Your task to perform on an android device: Clear the cart on target. Search for macbook pro 13 inch on target, select the first entry, and add it to the cart. Image 0: 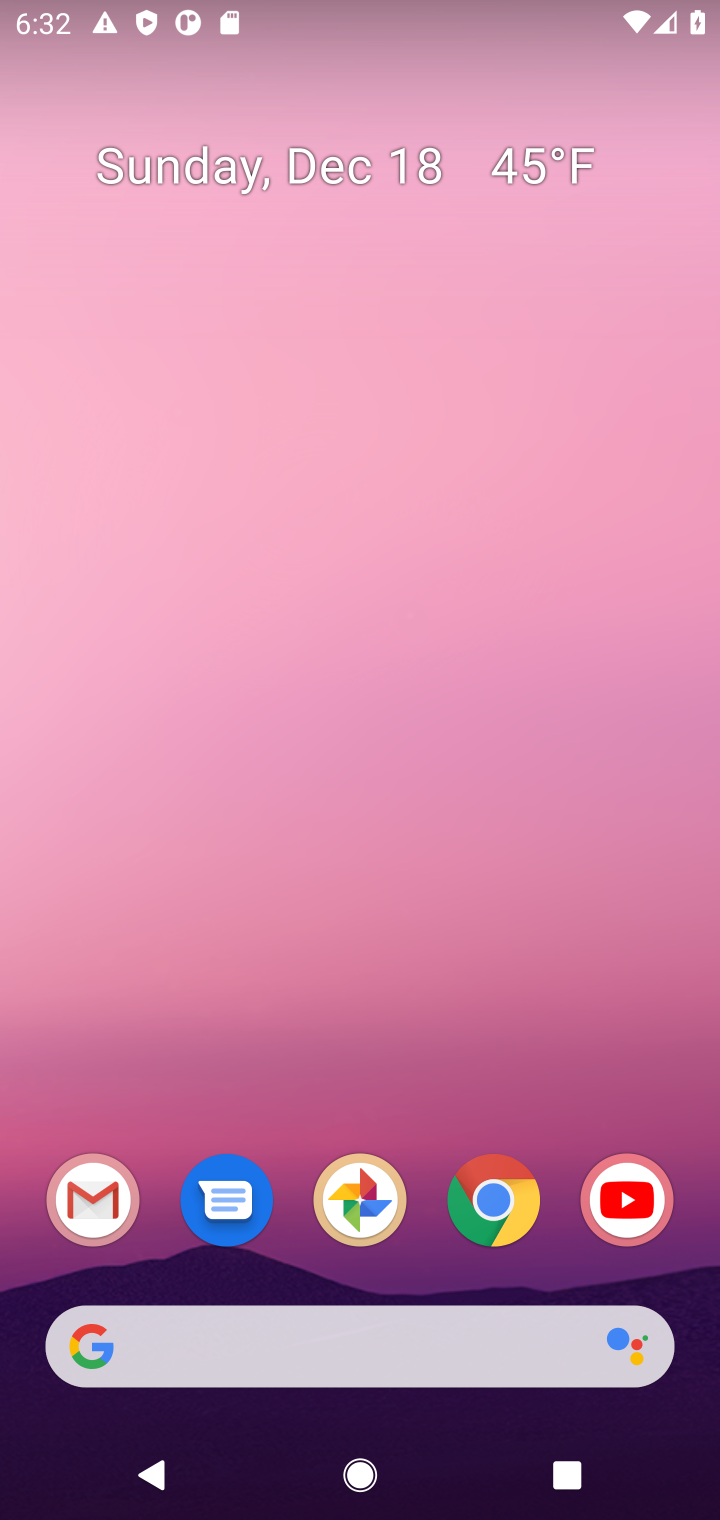
Step 0: click (493, 1205)
Your task to perform on an android device: Clear the cart on target. Search for macbook pro 13 inch on target, select the first entry, and add it to the cart. Image 1: 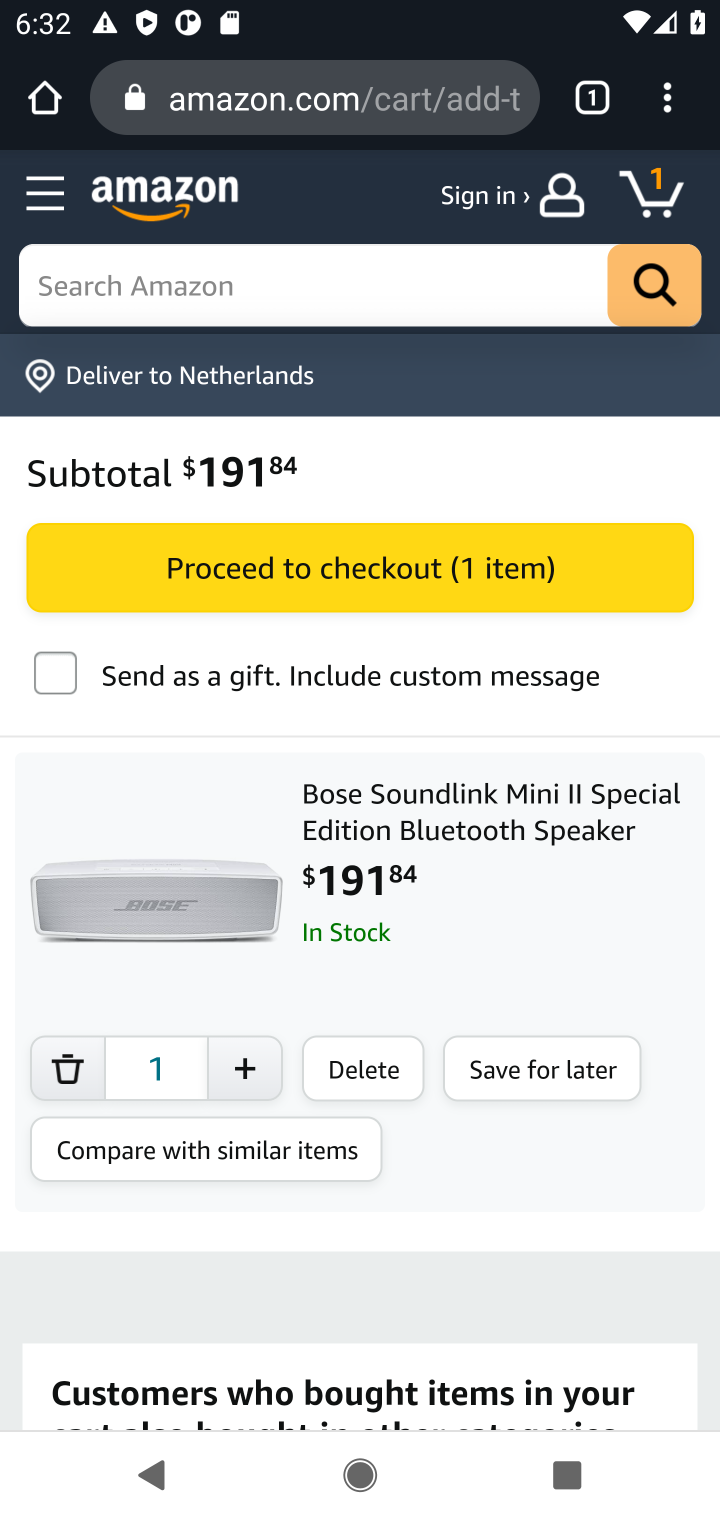
Step 1: click (296, 114)
Your task to perform on an android device: Clear the cart on target. Search for macbook pro 13 inch on target, select the first entry, and add it to the cart. Image 2: 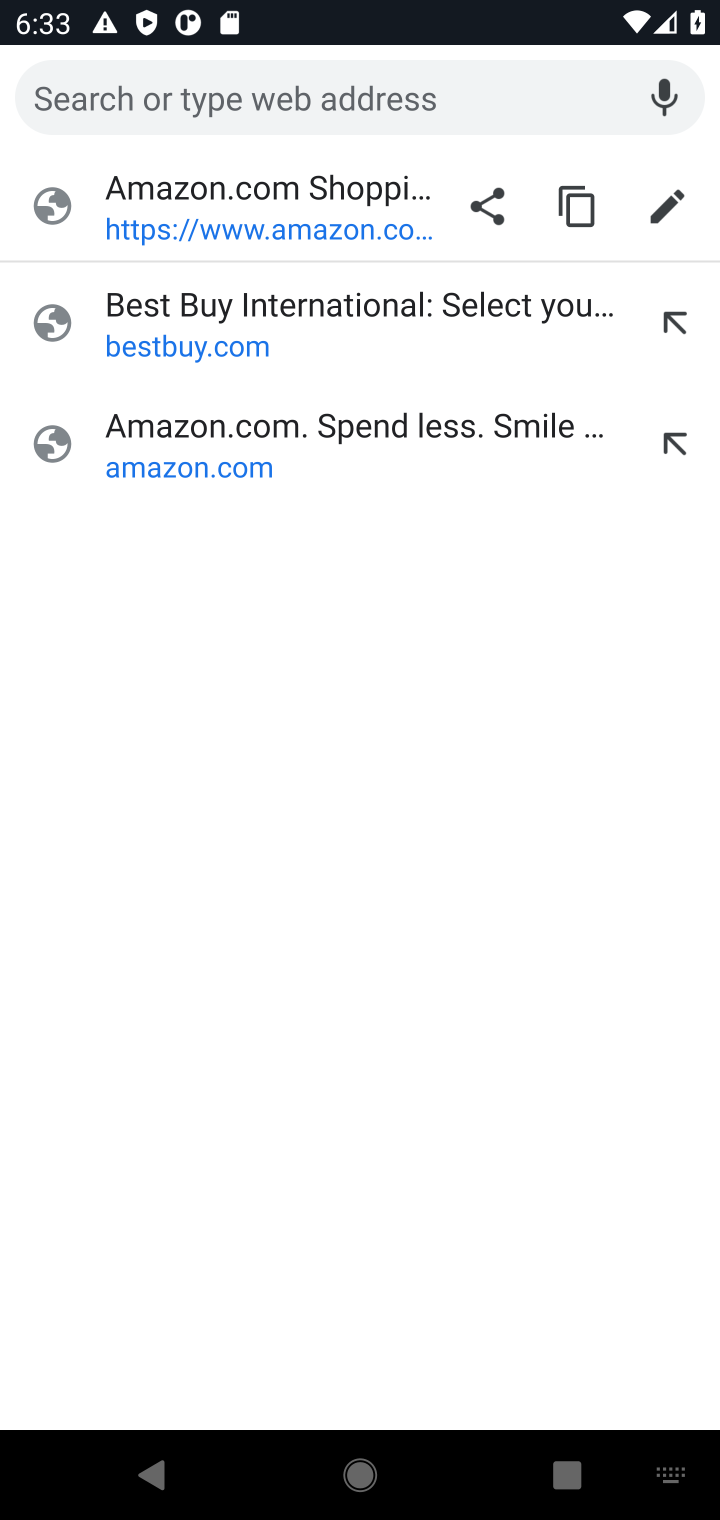
Step 2: type "target.com"
Your task to perform on an android device: Clear the cart on target. Search for macbook pro 13 inch on target, select the first entry, and add it to the cart. Image 3: 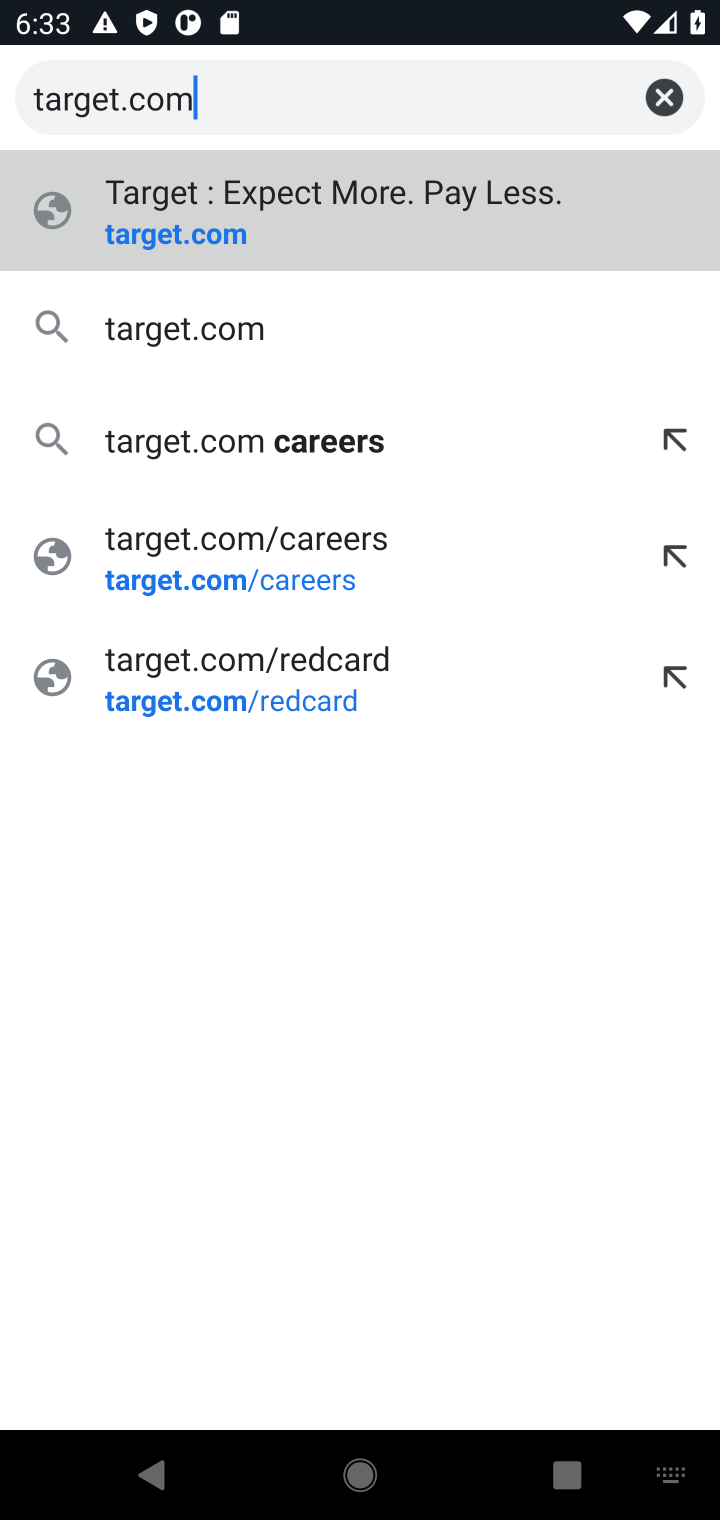
Step 3: click (163, 249)
Your task to perform on an android device: Clear the cart on target. Search for macbook pro 13 inch on target, select the first entry, and add it to the cart. Image 4: 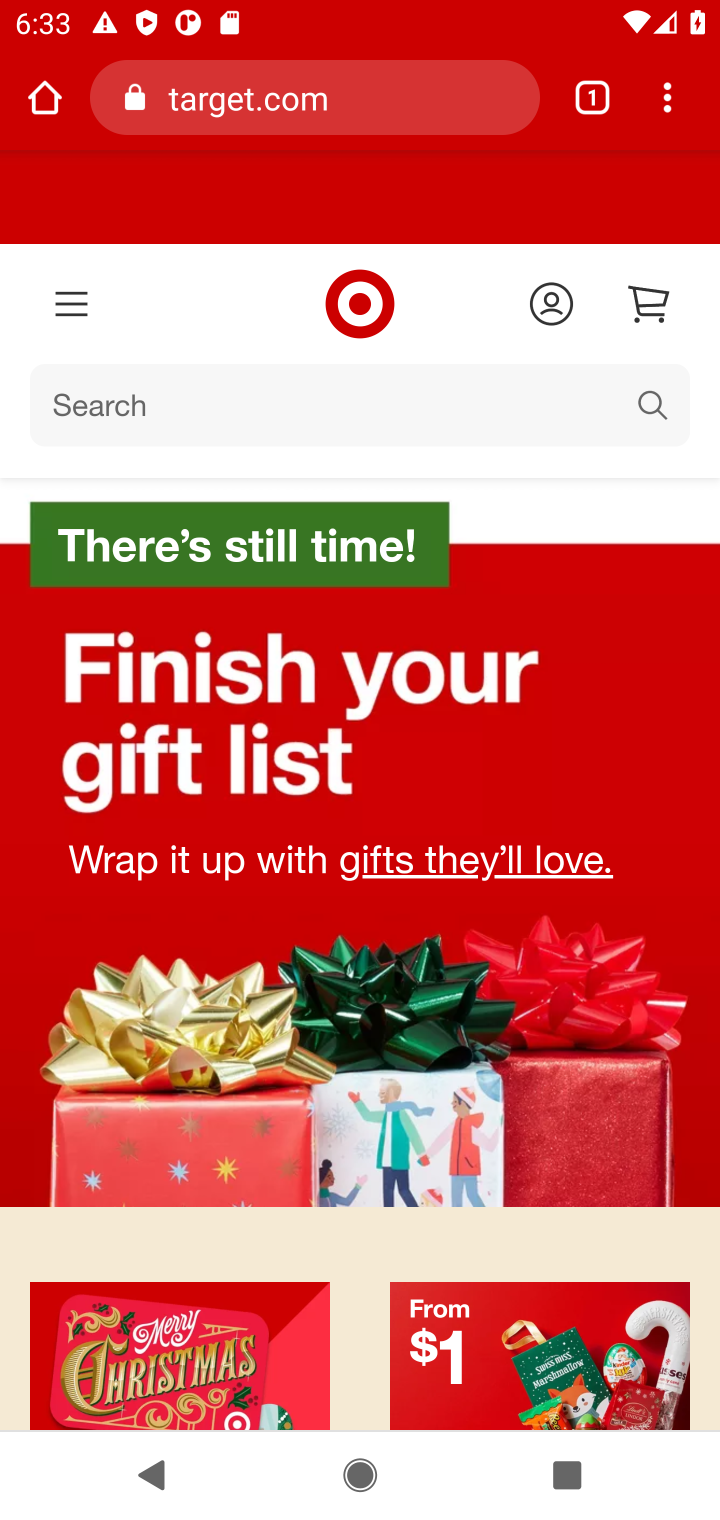
Step 4: click (656, 301)
Your task to perform on an android device: Clear the cart on target. Search for macbook pro 13 inch on target, select the first entry, and add it to the cart. Image 5: 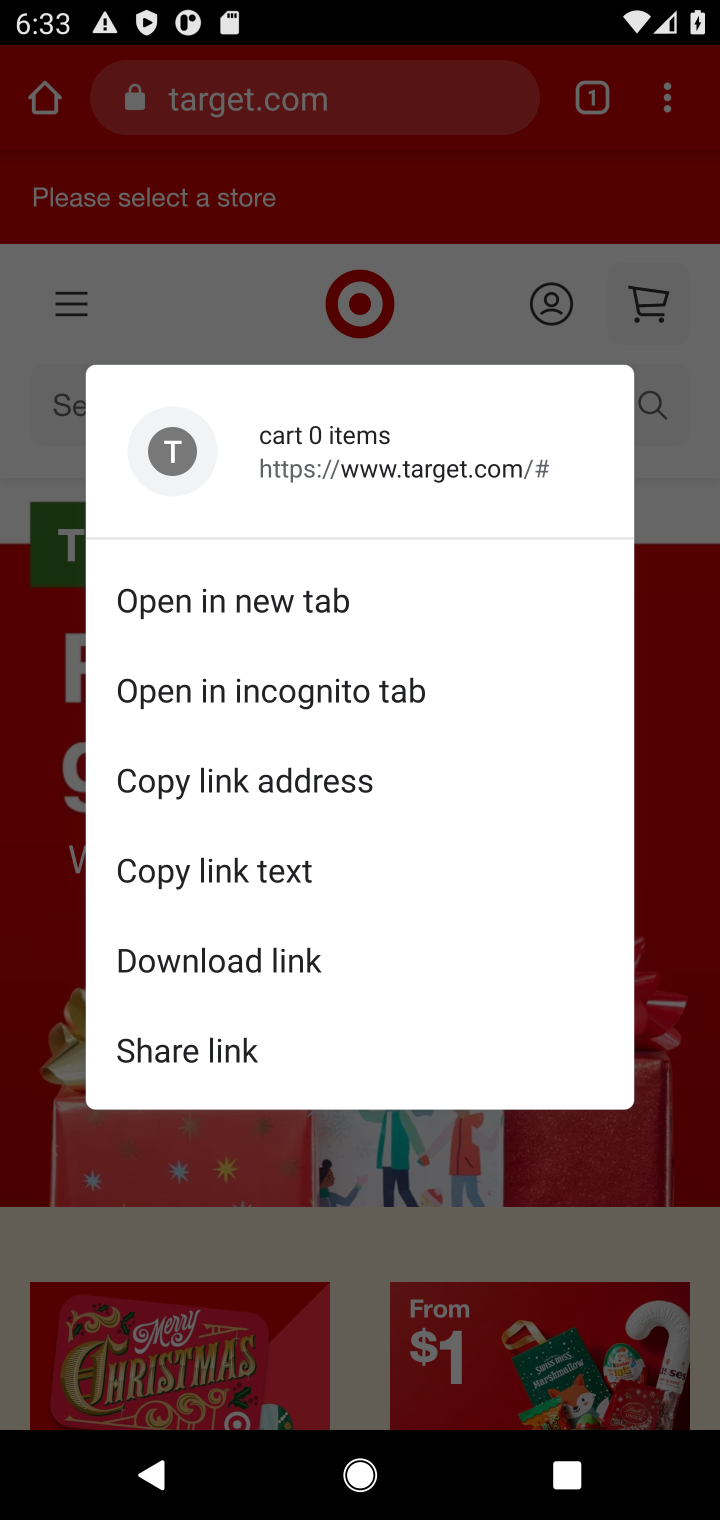
Step 5: click (661, 310)
Your task to perform on an android device: Clear the cart on target. Search for macbook pro 13 inch on target, select the first entry, and add it to the cart. Image 6: 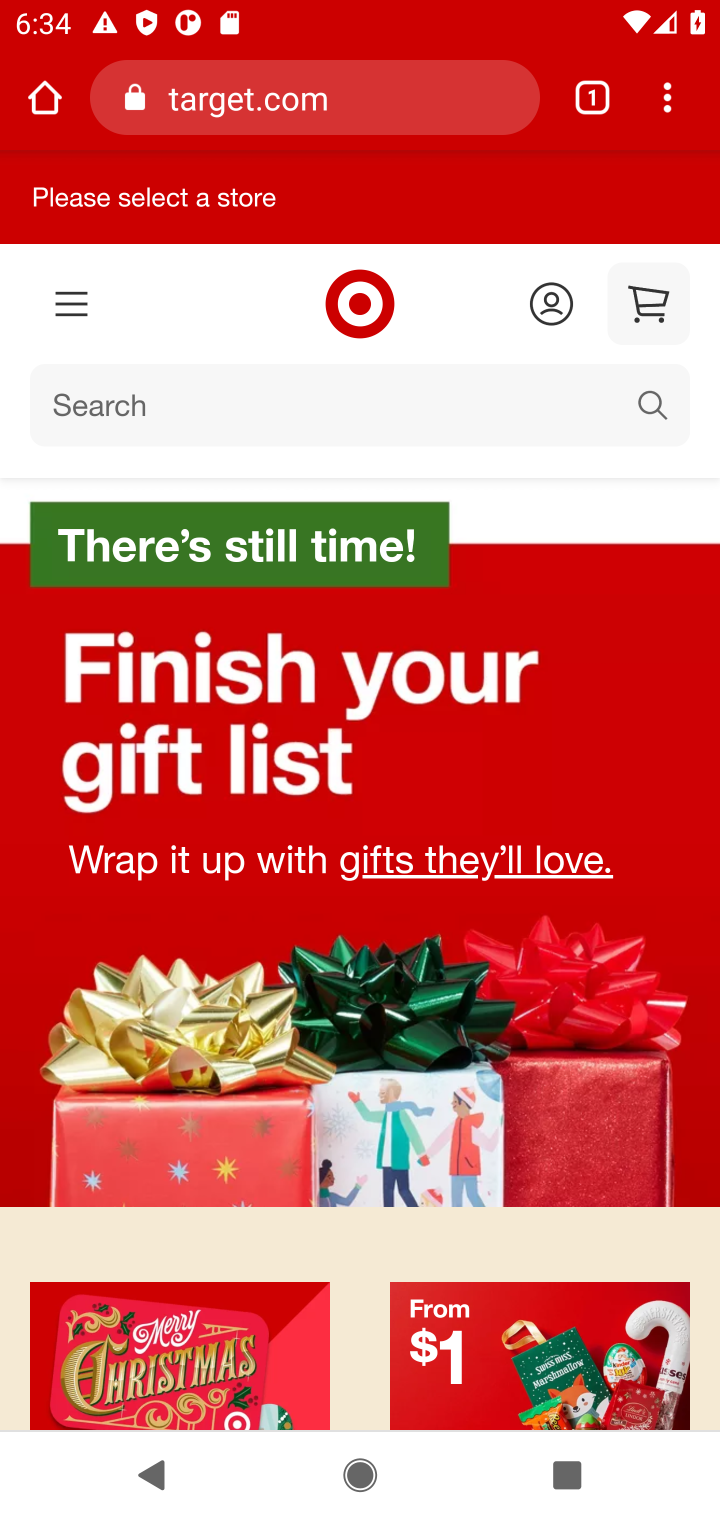
Step 6: click (628, 314)
Your task to perform on an android device: Clear the cart on target. Search for macbook pro 13 inch on target, select the first entry, and add it to the cart. Image 7: 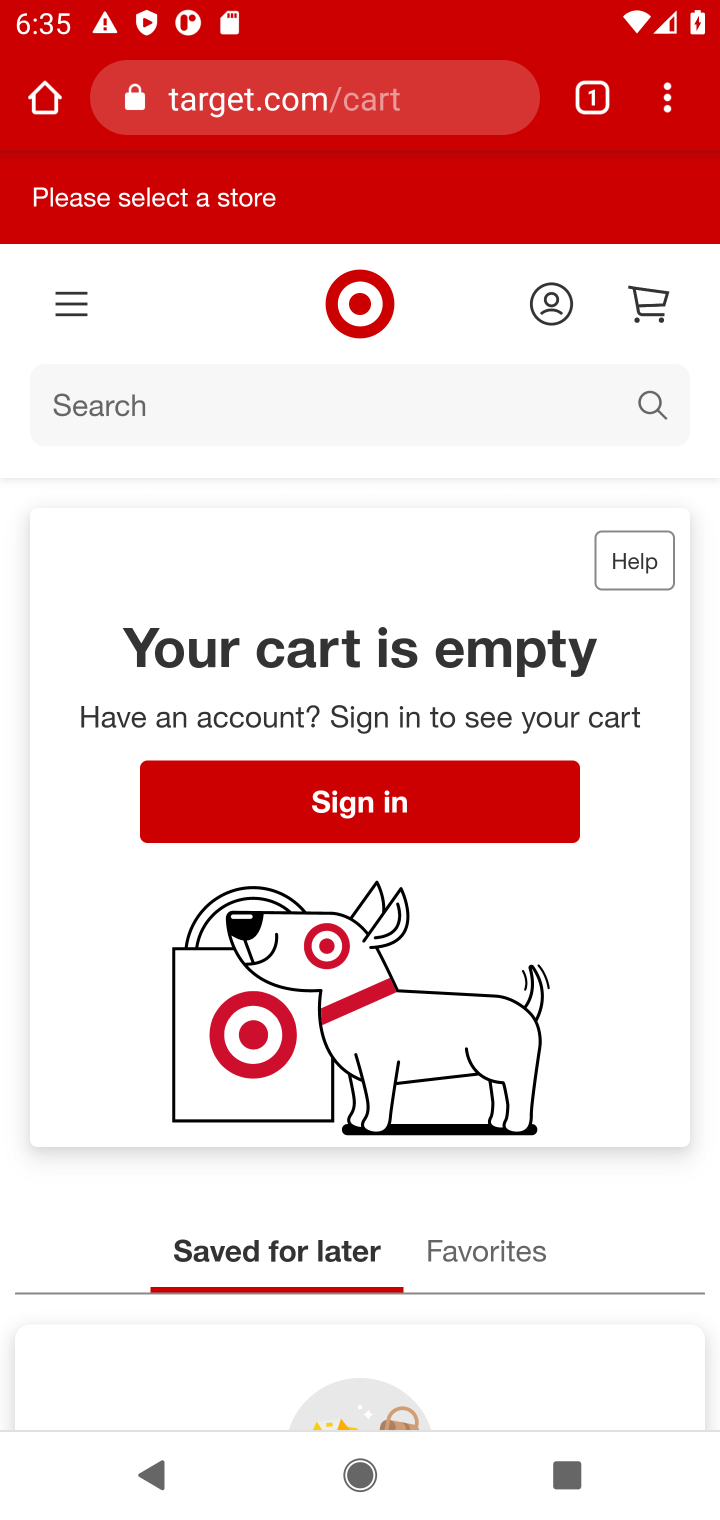
Step 7: click (118, 411)
Your task to perform on an android device: Clear the cart on target. Search for macbook pro 13 inch on target, select the first entry, and add it to the cart. Image 8: 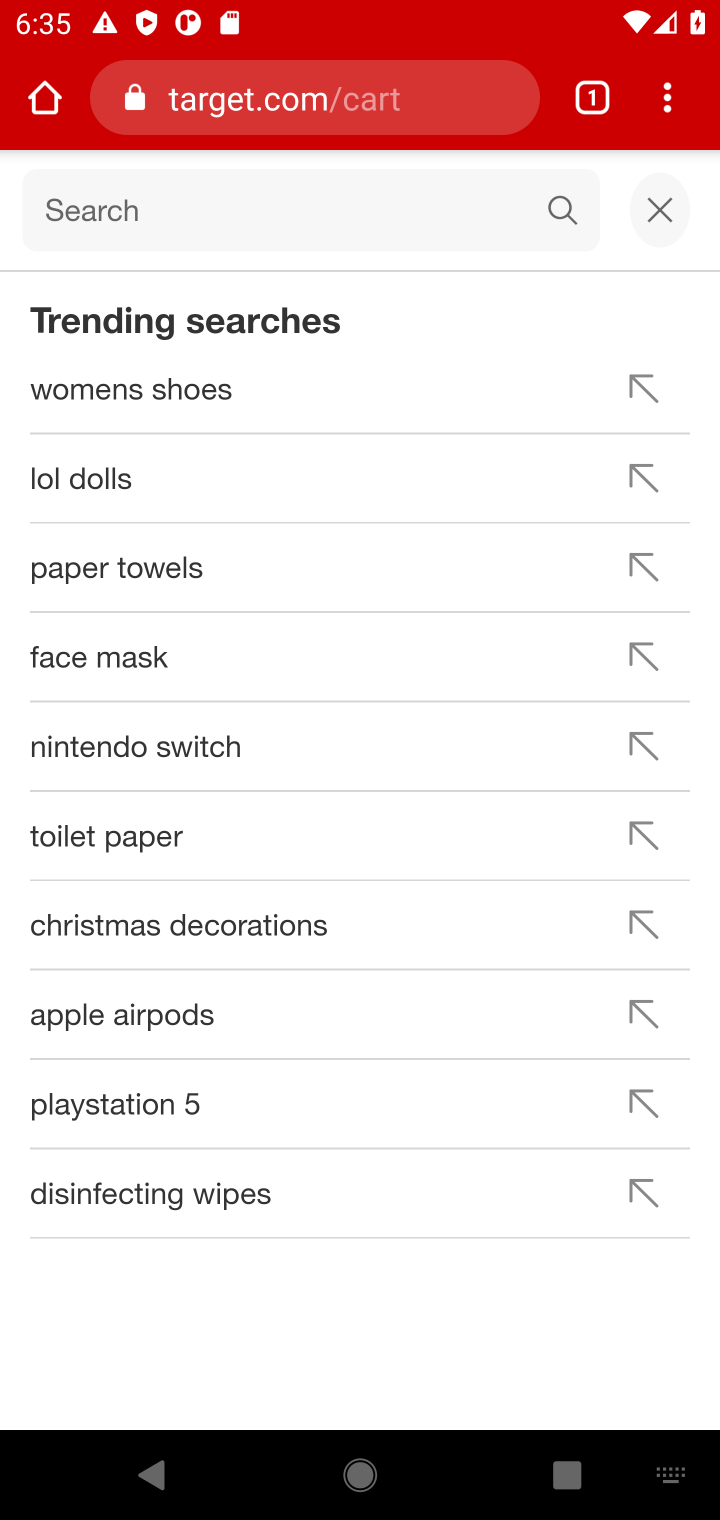
Step 8: type "macbook pro 13 inch "
Your task to perform on an android device: Clear the cart on target. Search for macbook pro 13 inch on target, select the first entry, and add it to the cart. Image 9: 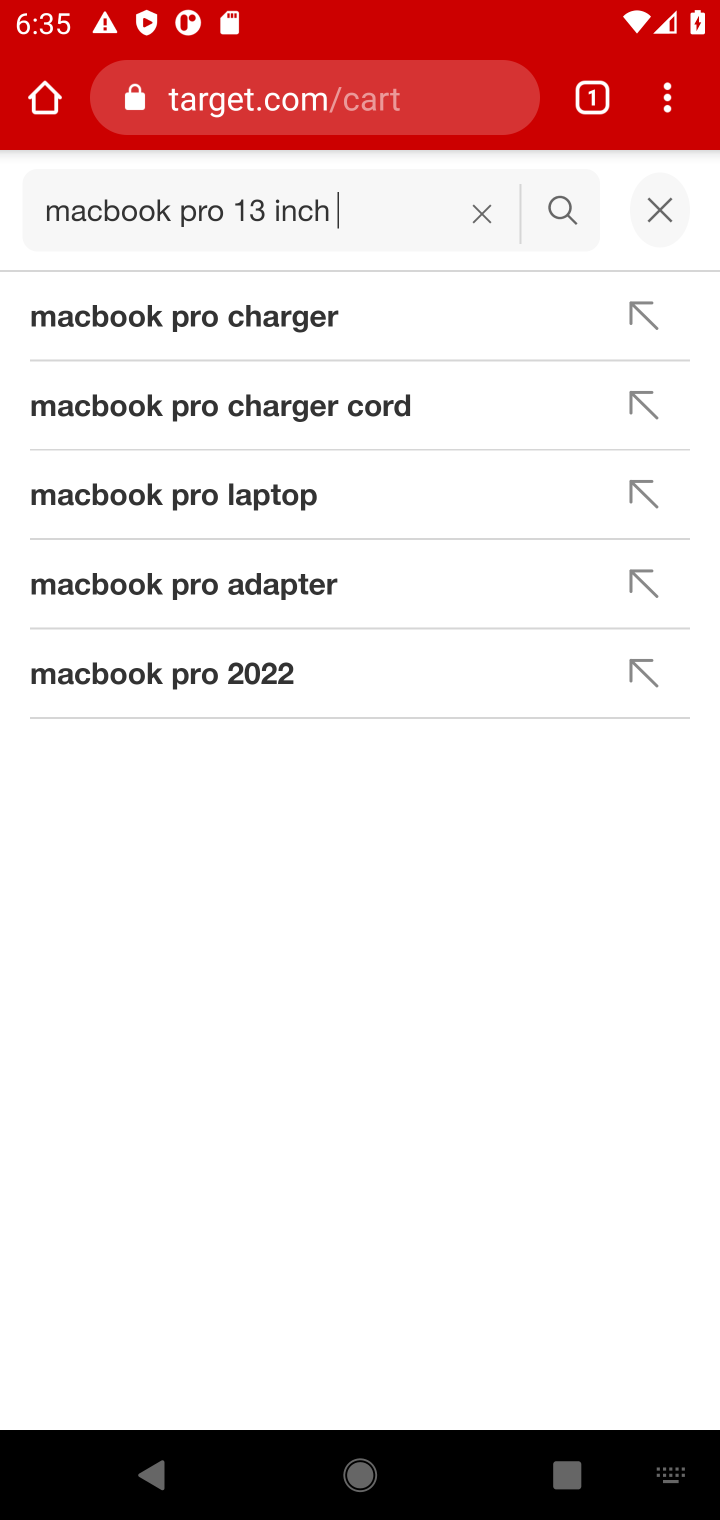
Step 9: click (558, 202)
Your task to perform on an android device: Clear the cart on target. Search for macbook pro 13 inch on target, select the first entry, and add it to the cart. Image 10: 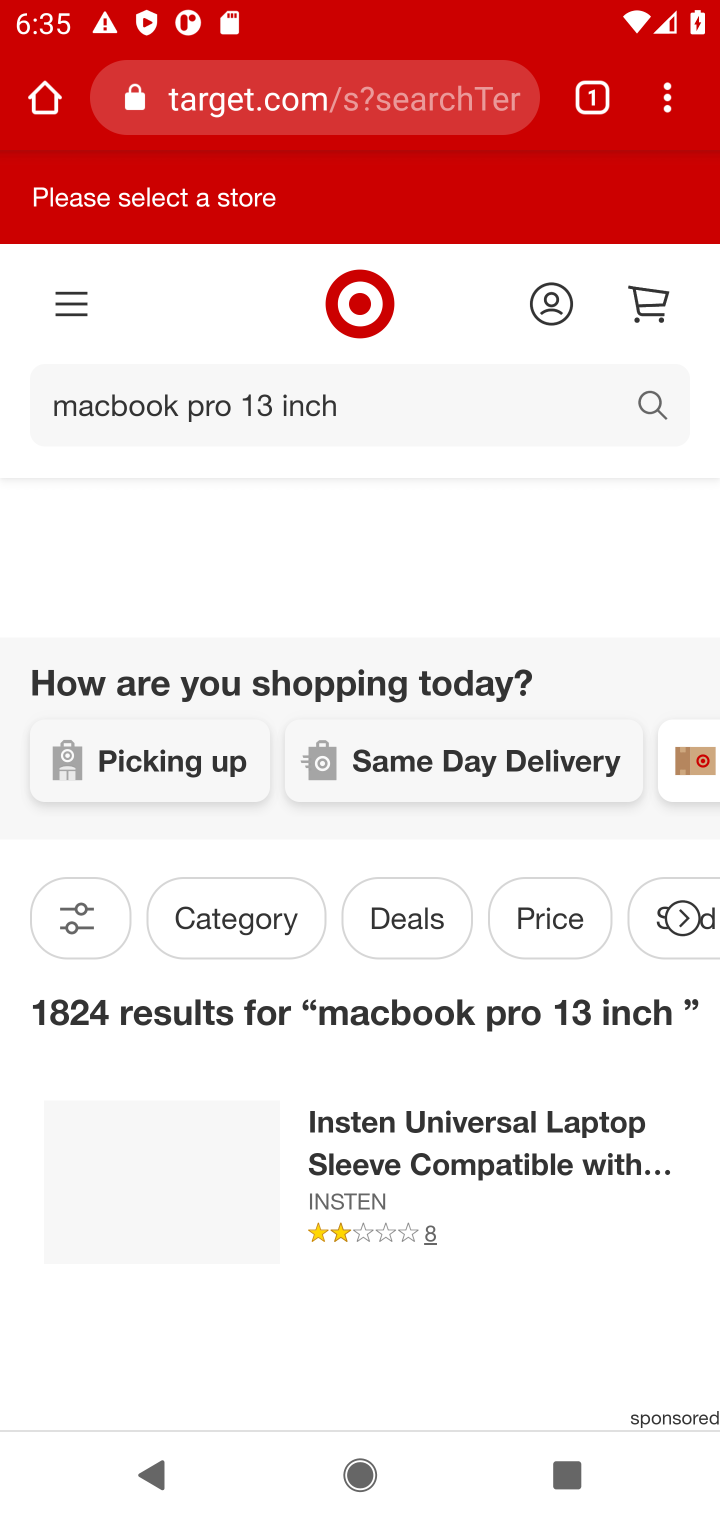
Step 10: drag from (395, 1015) to (438, 613)
Your task to perform on an android device: Clear the cart on target. Search for macbook pro 13 inch on target, select the first entry, and add it to the cart. Image 11: 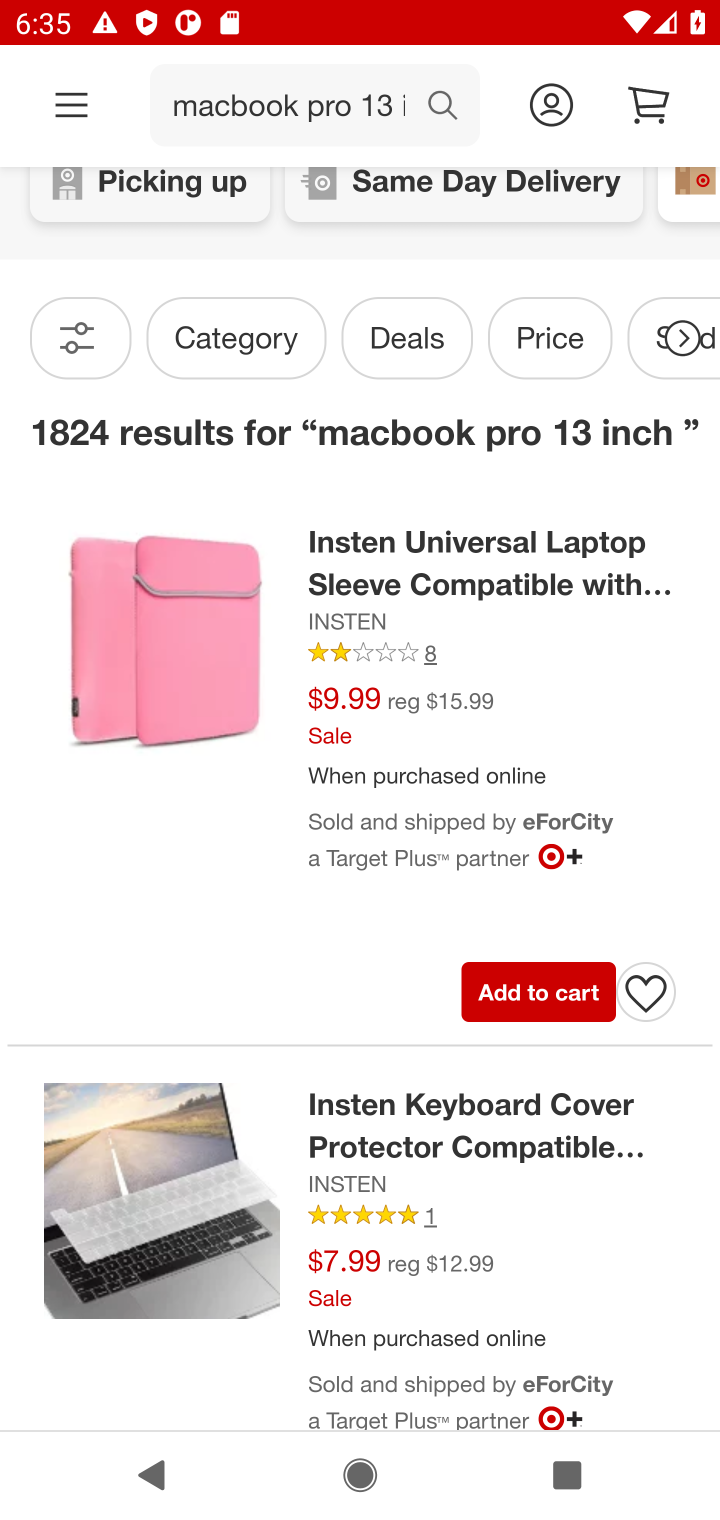
Step 11: click (419, 588)
Your task to perform on an android device: Clear the cart on target. Search for macbook pro 13 inch on target, select the first entry, and add it to the cart. Image 12: 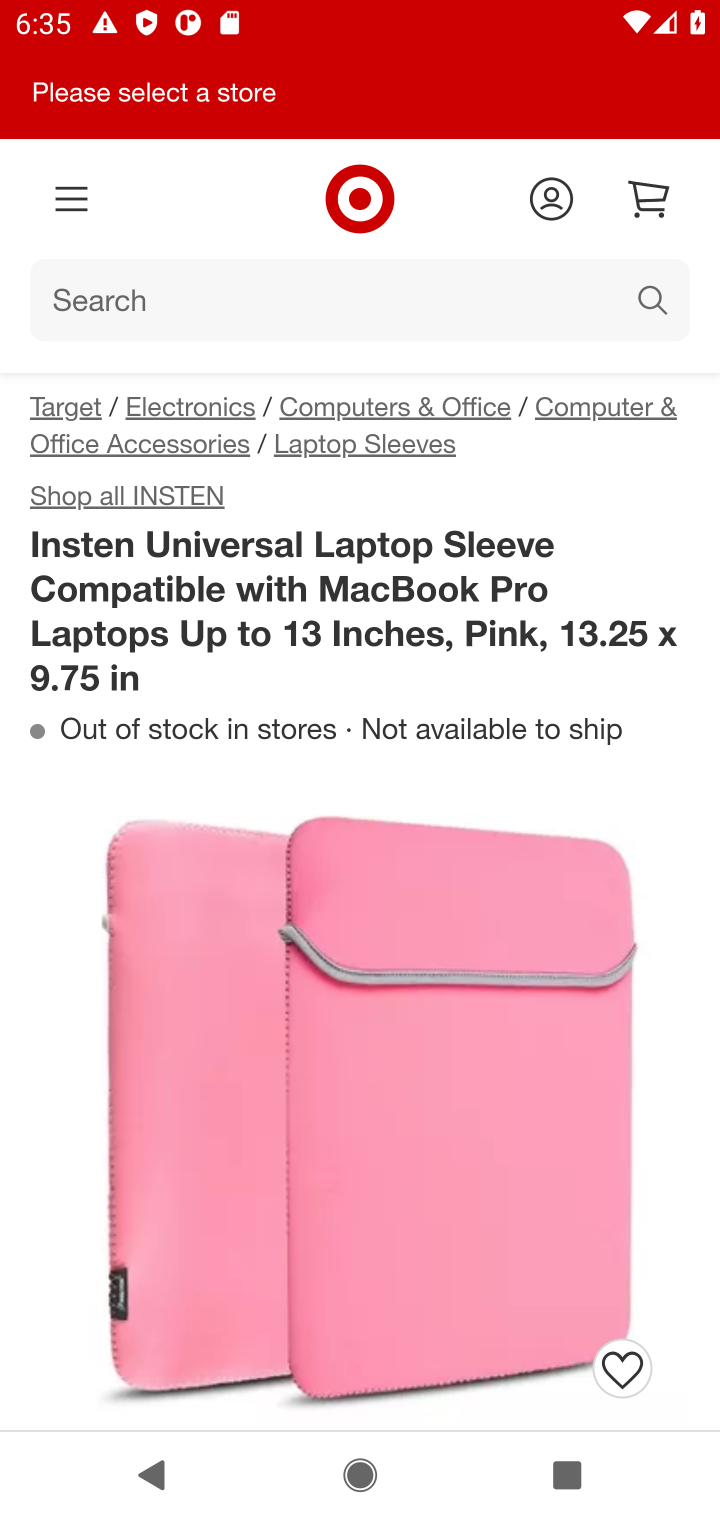
Step 12: drag from (358, 1017) to (375, 665)
Your task to perform on an android device: Clear the cart on target. Search for macbook pro 13 inch on target, select the first entry, and add it to the cart. Image 13: 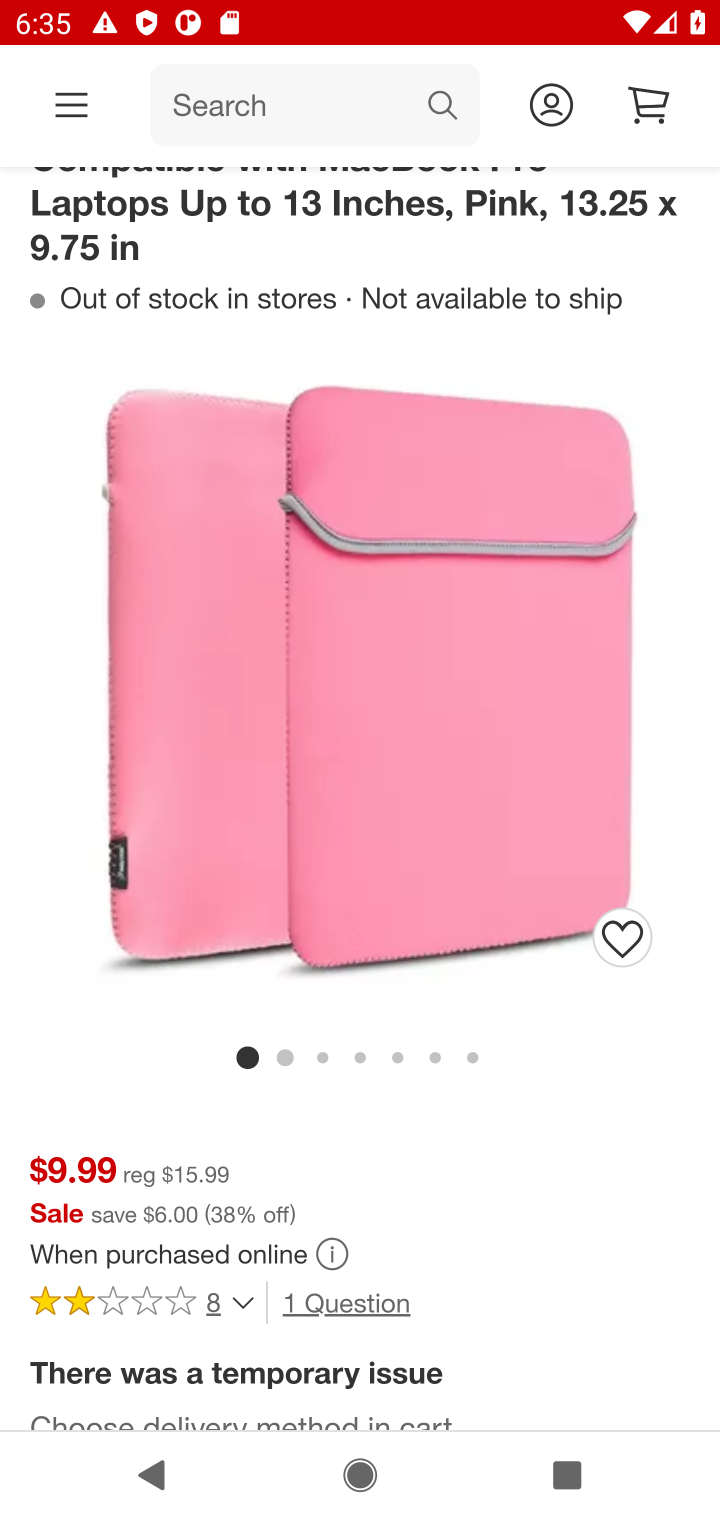
Step 13: drag from (381, 980) to (391, 608)
Your task to perform on an android device: Clear the cart on target. Search for macbook pro 13 inch on target, select the first entry, and add it to the cart. Image 14: 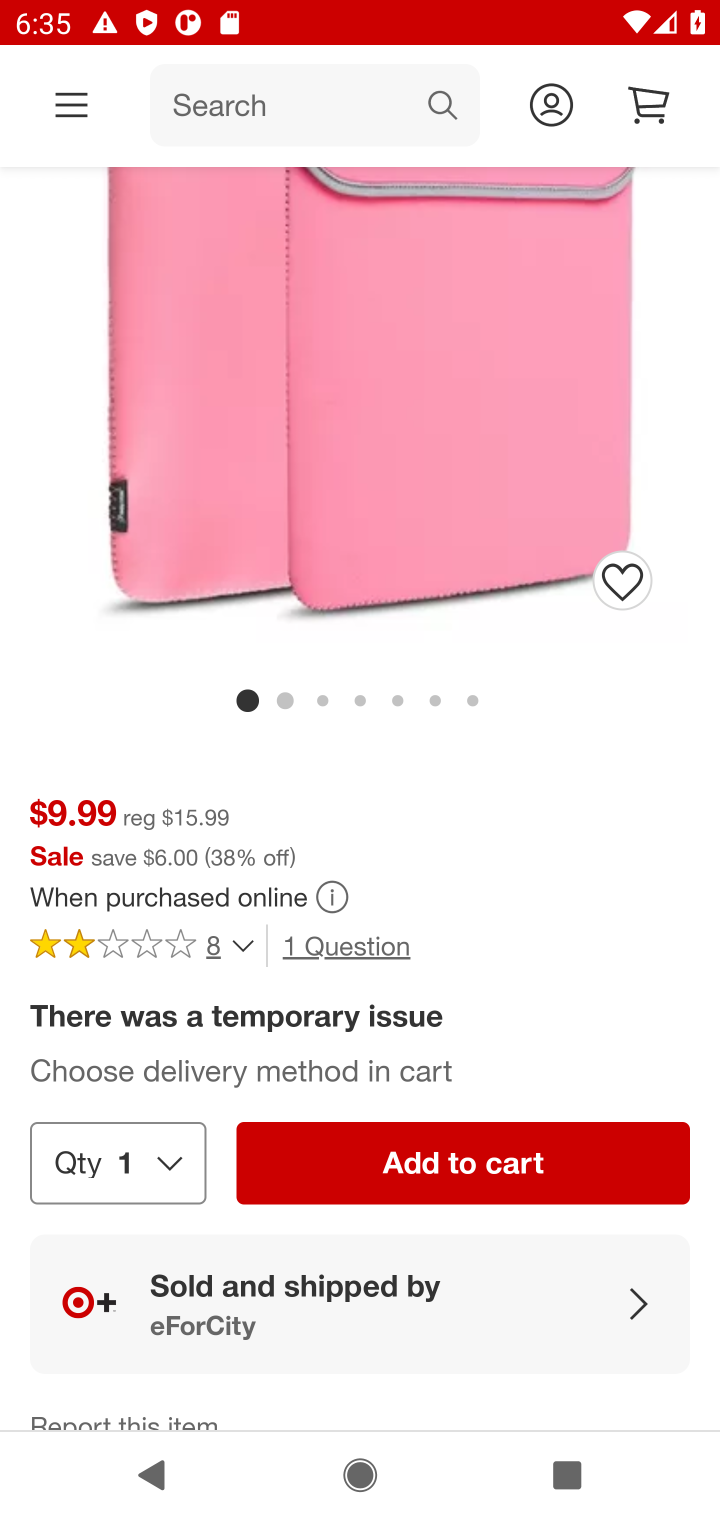
Step 14: click (489, 1170)
Your task to perform on an android device: Clear the cart on target. Search for macbook pro 13 inch on target, select the first entry, and add it to the cart. Image 15: 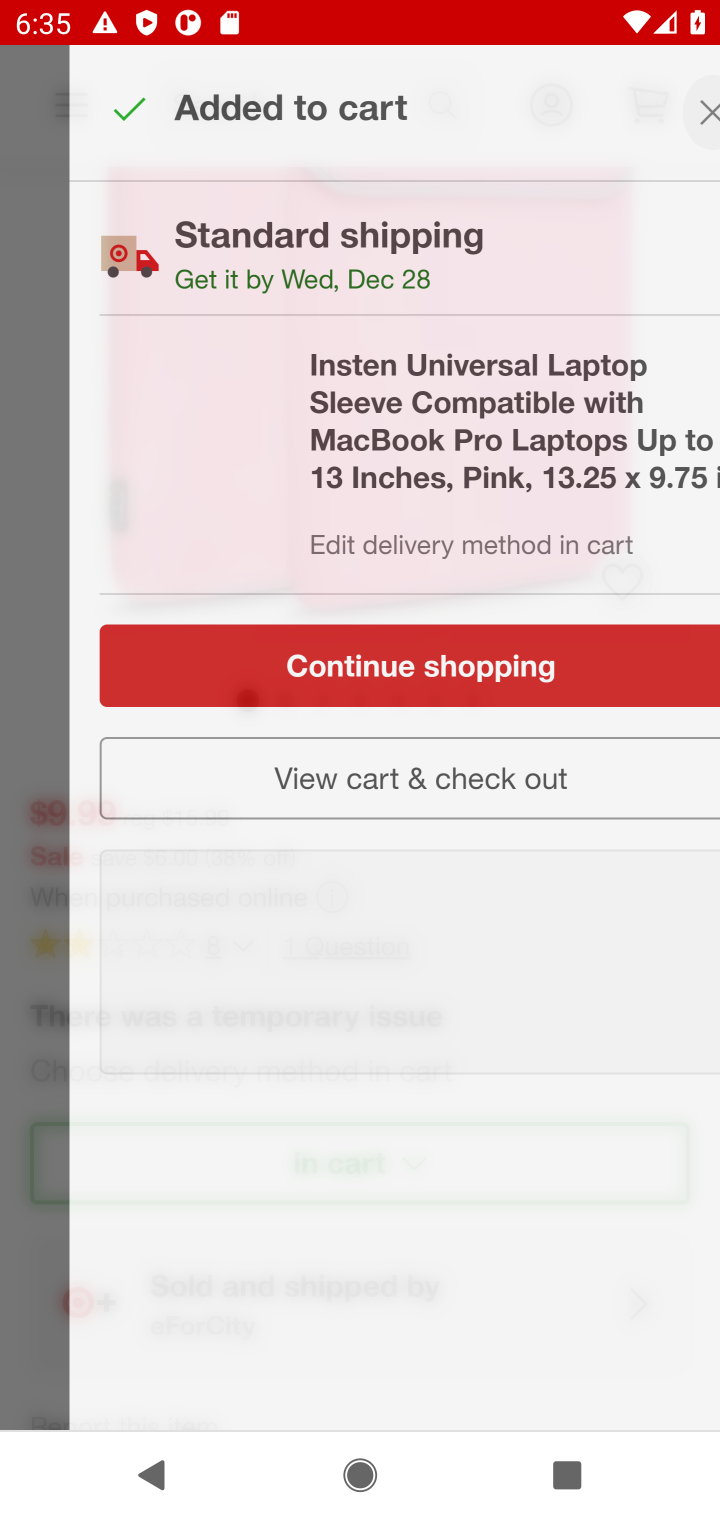
Step 15: task complete